Your task to perform on an android device: Open Maps and search for coffee Image 0: 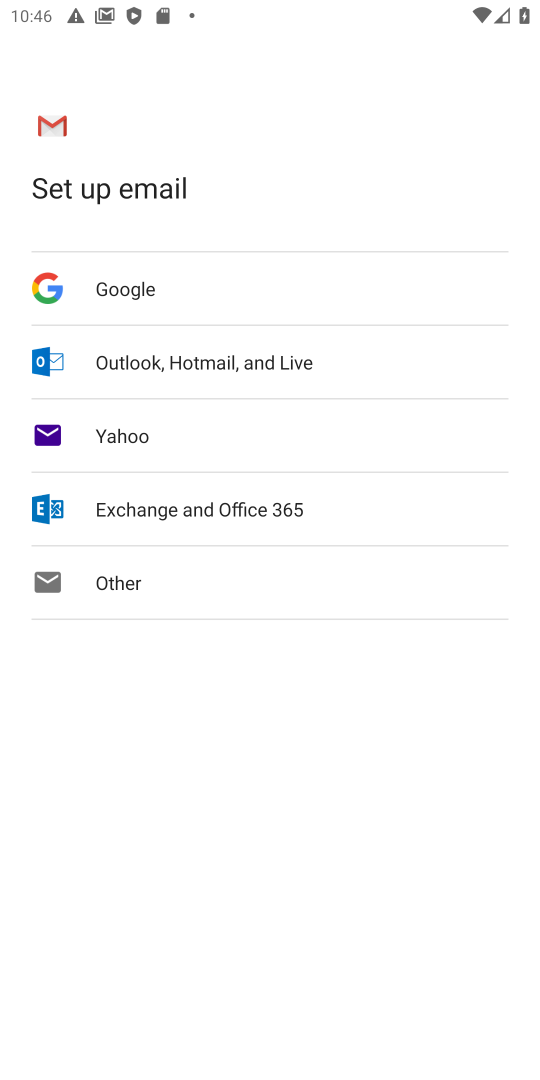
Step 0: click (536, 854)
Your task to perform on an android device: Open Maps and search for coffee Image 1: 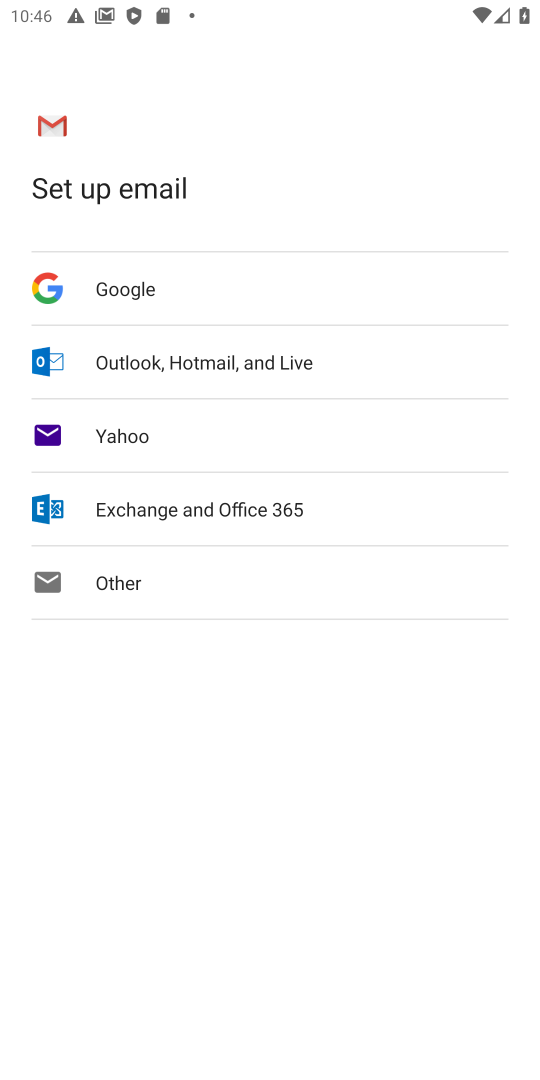
Step 1: press home button
Your task to perform on an android device: Open Maps and search for coffee Image 2: 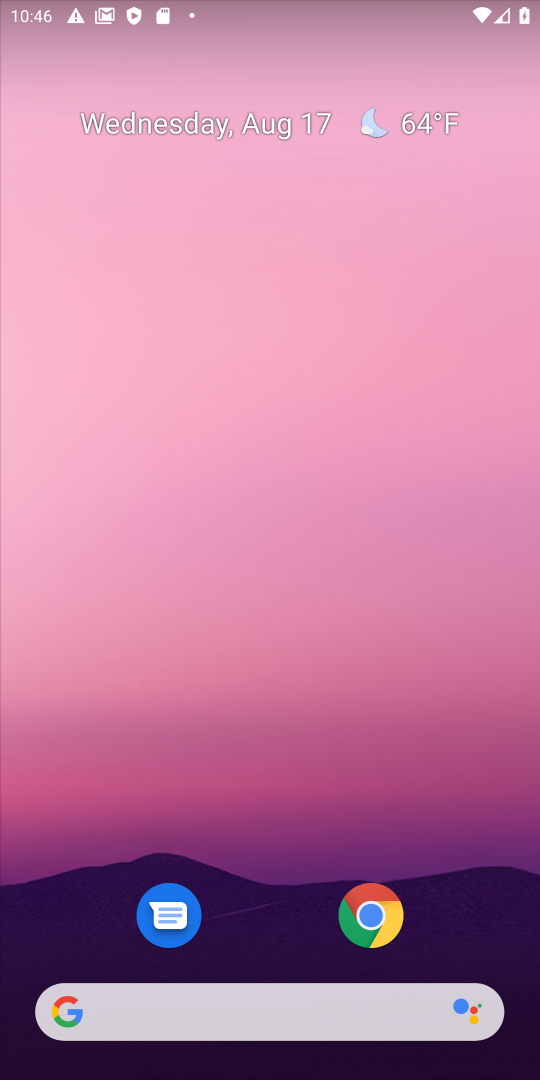
Step 2: drag from (289, 891) to (281, 167)
Your task to perform on an android device: Open Maps and search for coffee Image 3: 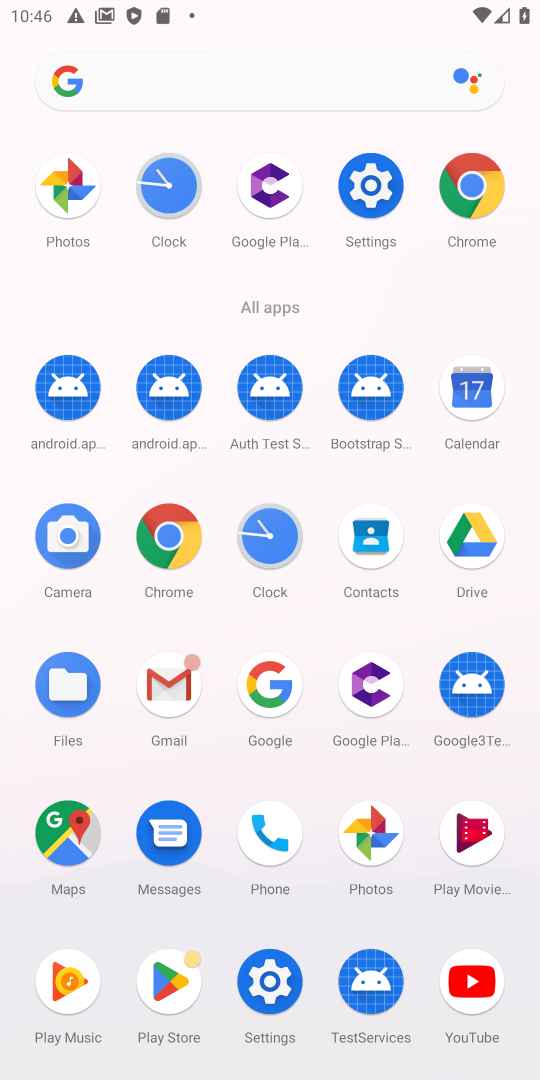
Step 3: click (64, 832)
Your task to perform on an android device: Open Maps and search for coffee Image 4: 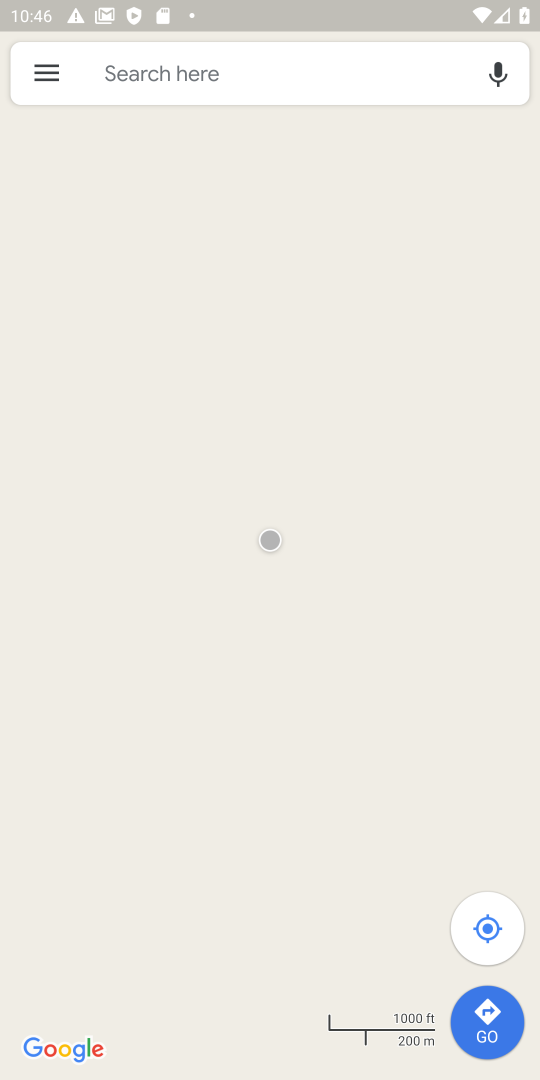
Step 4: click (215, 79)
Your task to perform on an android device: Open Maps and search for coffee Image 5: 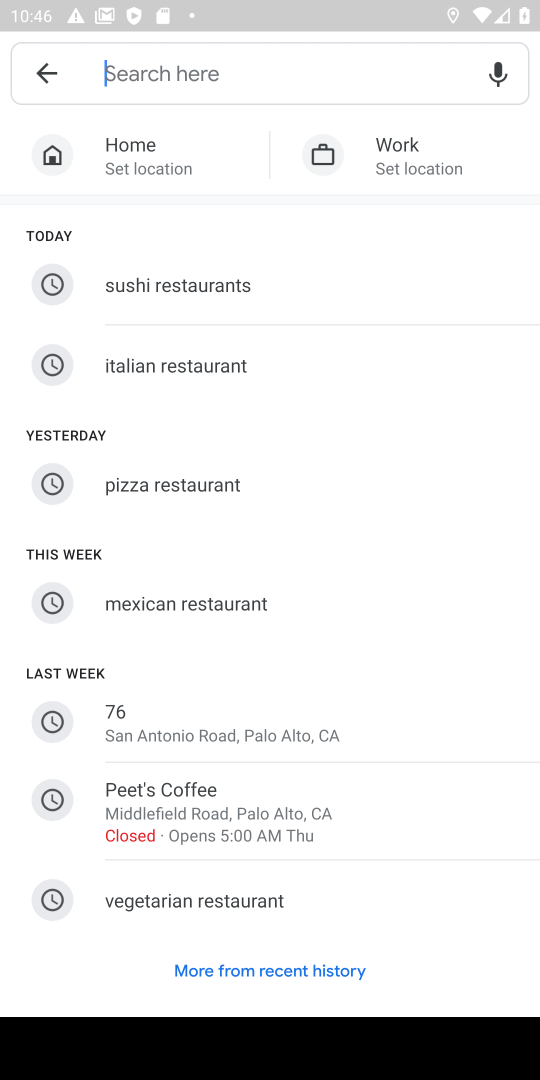
Step 5: type "coffee"
Your task to perform on an android device: Open Maps and search for coffee Image 6: 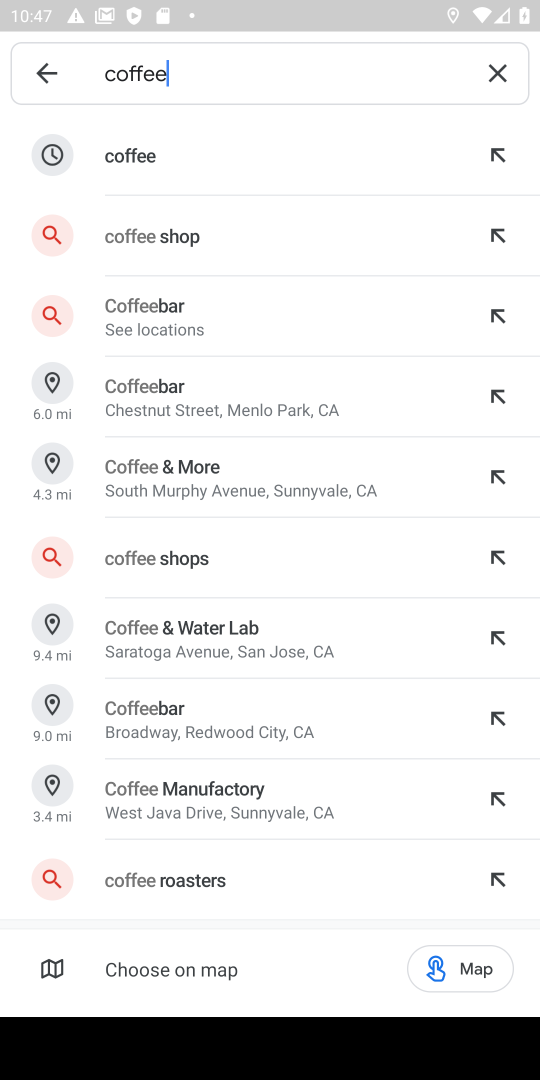
Step 6: click (122, 154)
Your task to perform on an android device: Open Maps and search for coffee Image 7: 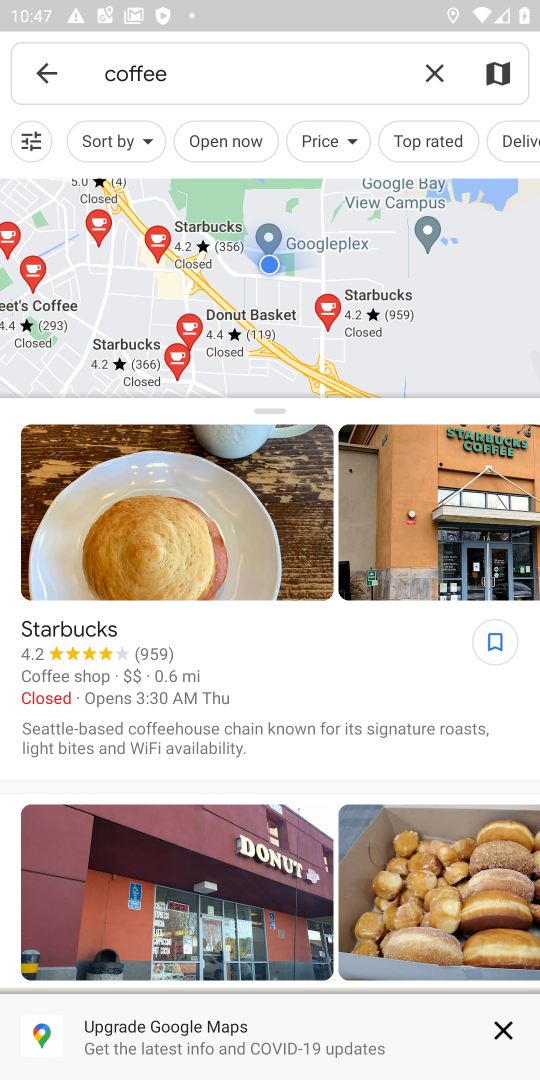
Step 7: task complete